Your task to perform on an android device: Open settings Image 0: 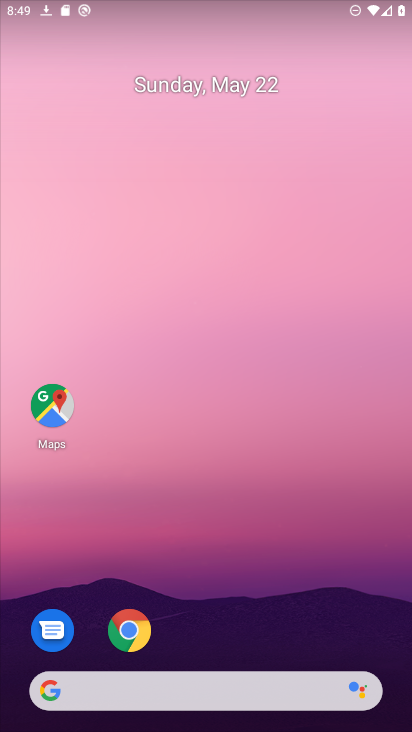
Step 0: drag from (277, 611) to (208, 94)
Your task to perform on an android device: Open settings Image 1: 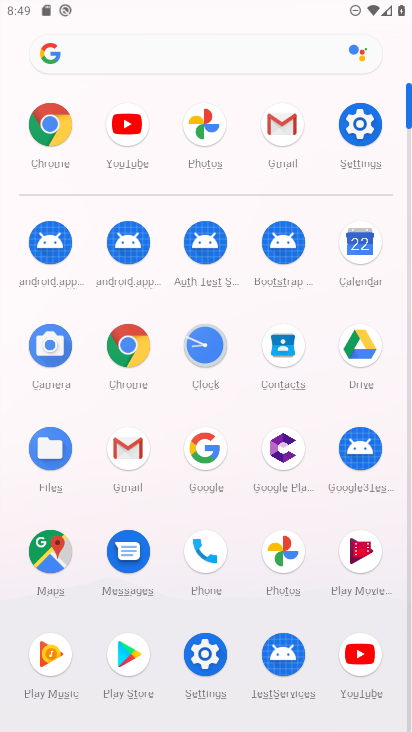
Step 1: click (353, 121)
Your task to perform on an android device: Open settings Image 2: 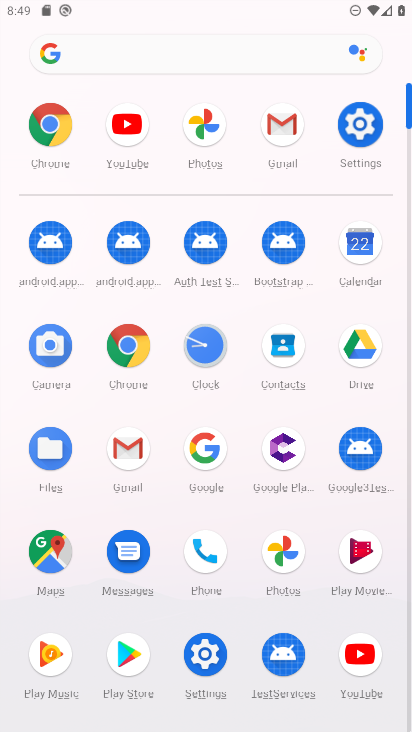
Step 2: task complete